Your task to perform on an android device: Open the phone app and click the voicemail tab. Image 0: 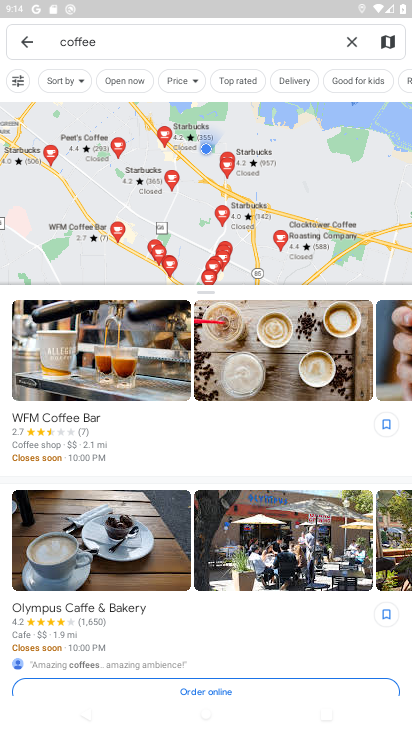
Step 0: press home button
Your task to perform on an android device: Open the phone app and click the voicemail tab. Image 1: 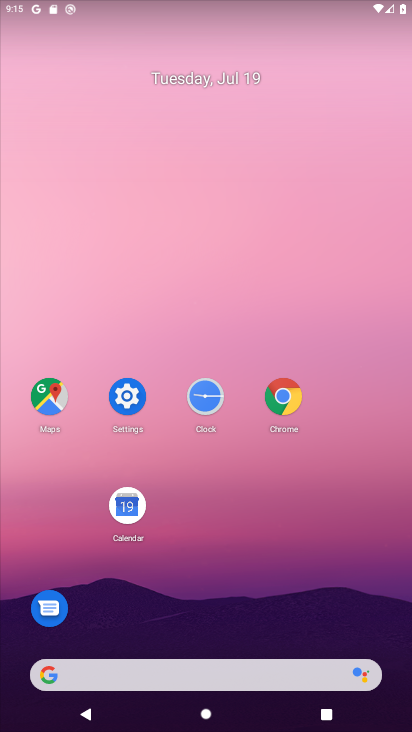
Step 1: drag from (380, 597) to (352, 123)
Your task to perform on an android device: Open the phone app and click the voicemail tab. Image 2: 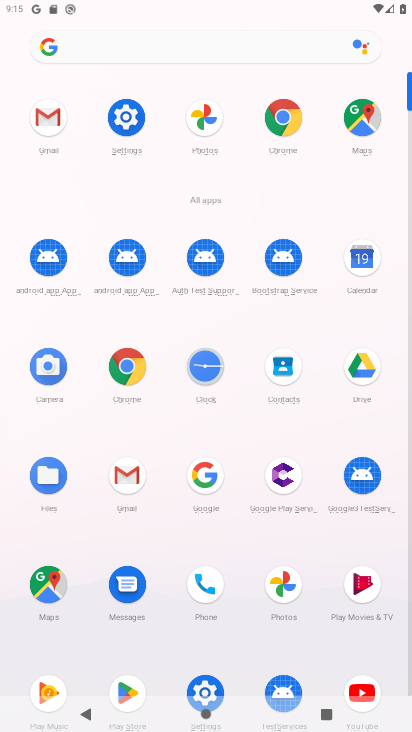
Step 2: click (198, 592)
Your task to perform on an android device: Open the phone app and click the voicemail tab. Image 3: 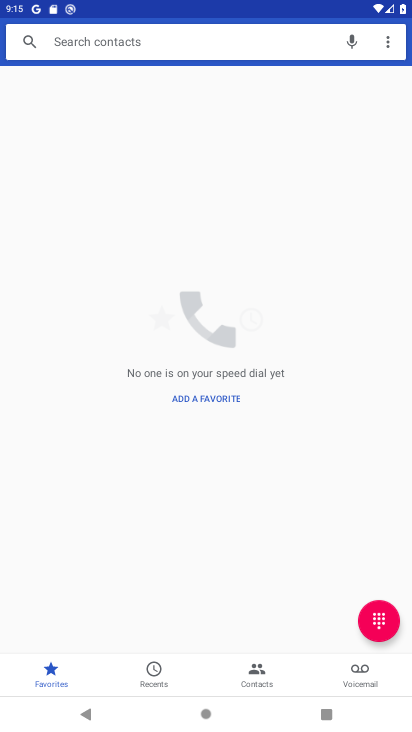
Step 3: click (360, 663)
Your task to perform on an android device: Open the phone app and click the voicemail tab. Image 4: 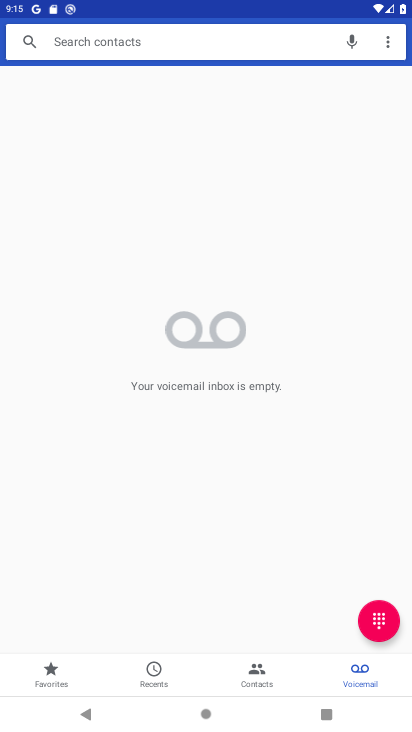
Step 4: task complete